Your task to perform on an android device: Open my contact list Image 0: 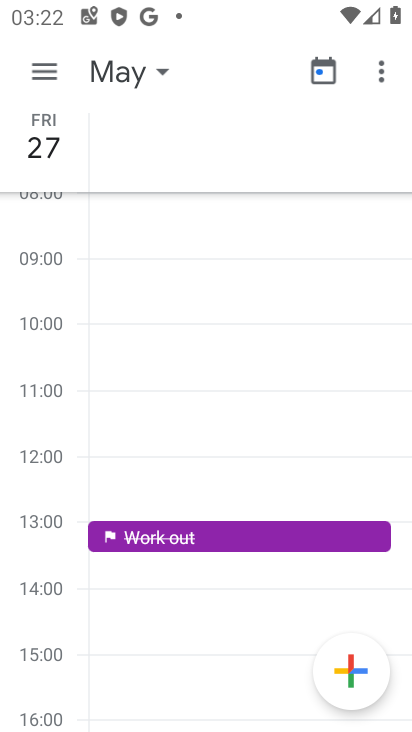
Step 0: press home button
Your task to perform on an android device: Open my contact list Image 1: 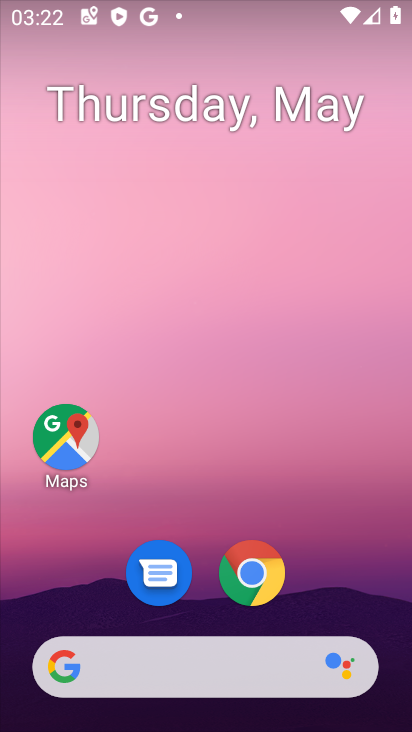
Step 1: drag from (307, 585) to (310, 189)
Your task to perform on an android device: Open my contact list Image 2: 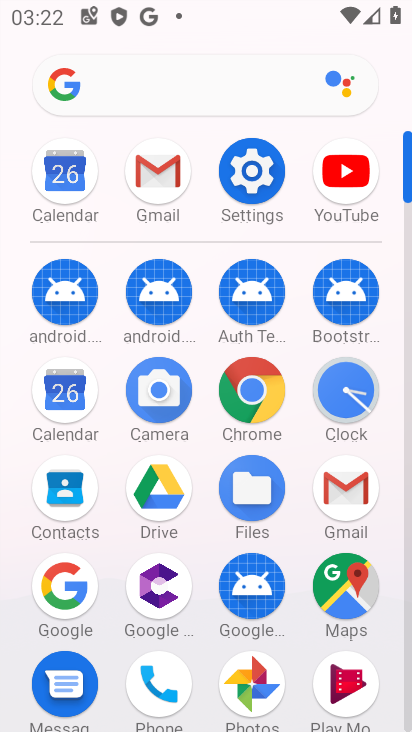
Step 2: drag from (210, 567) to (211, 403)
Your task to perform on an android device: Open my contact list Image 3: 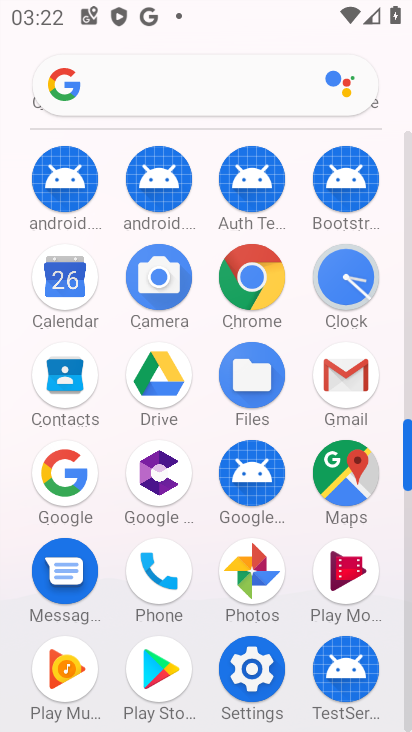
Step 3: click (147, 567)
Your task to perform on an android device: Open my contact list Image 4: 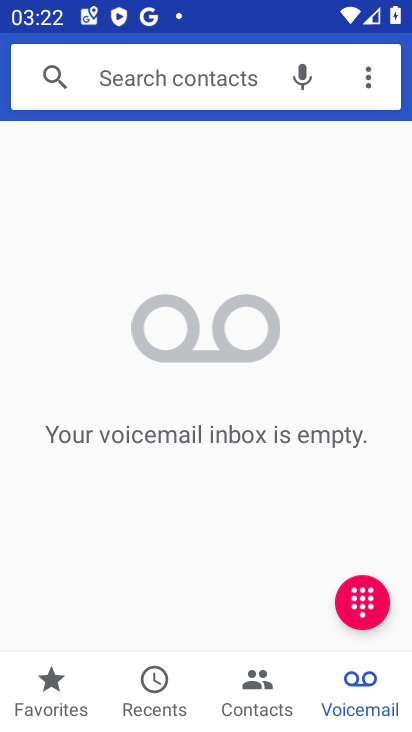
Step 4: click (271, 678)
Your task to perform on an android device: Open my contact list Image 5: 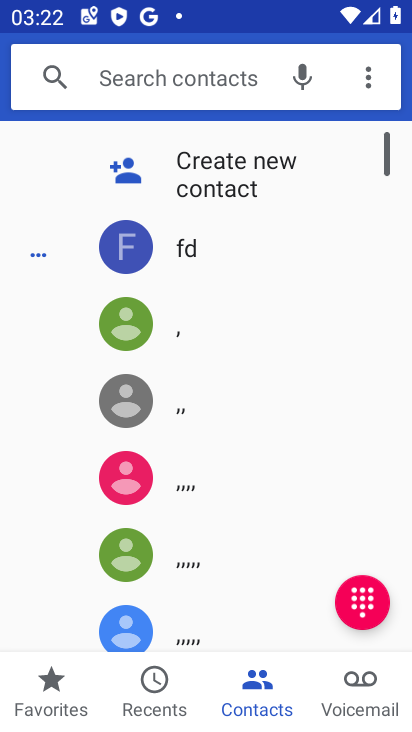
Step 5: task complete